Your task to perform on an android device: Go to Reddit.com Image 0: 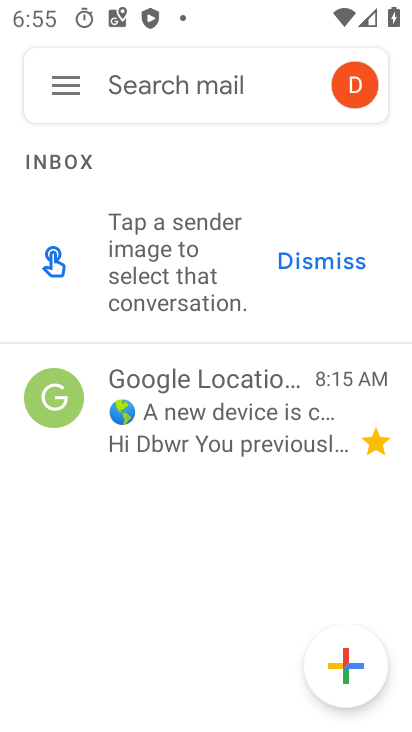
Step 0: press home button
Your task to perform on an android device: Go to Reddit.com Image 1: 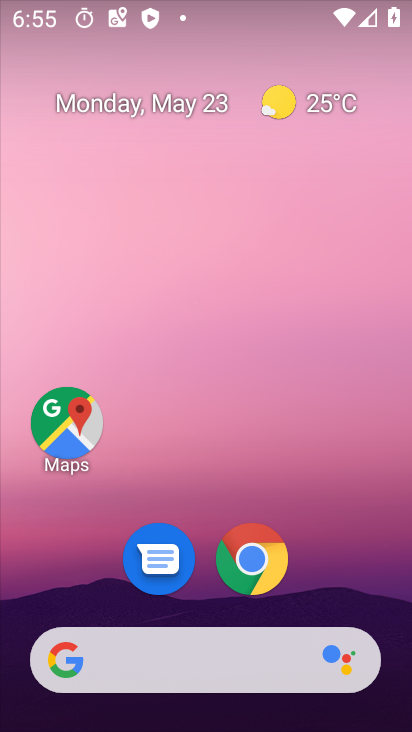
Step 1: drag from (402, 609) to (261, 56)
Your task to perform on an android device: Go to Reddit.com Image 2: 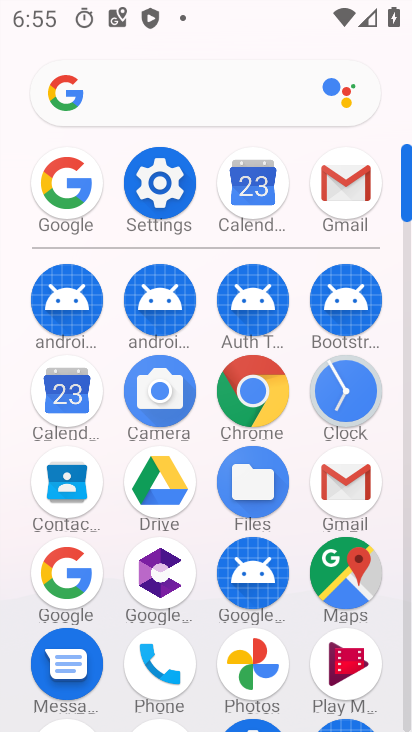
Step 2: click (64, 554)
Your task to perform on an android device: Go to Reddit.com Image 3: 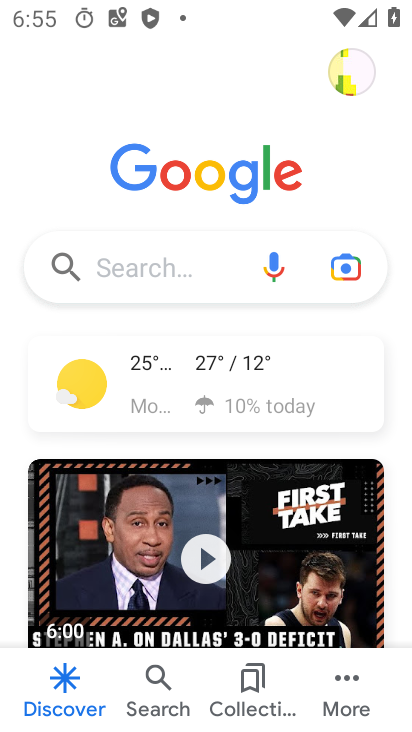
Step 3: click (139, 261)
Your task to perform on an android device: Go to Reddit.com Image 4: 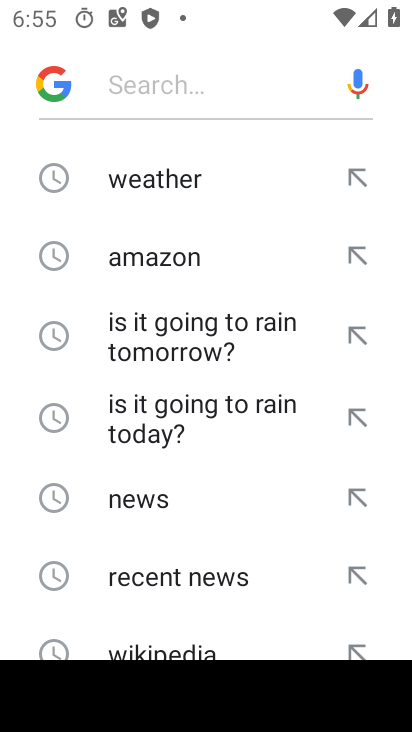
Step 4: drag from (154, 595) to (180, 164)
Your task to perform on an android device: Go to Reddit.com Image 5: 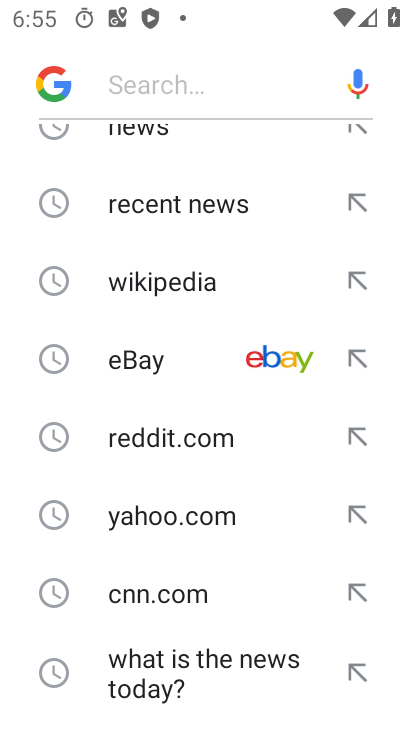
Step 5: click (166, 427)
Your task to perform on an android device: Go to Reddit.com Image 6: 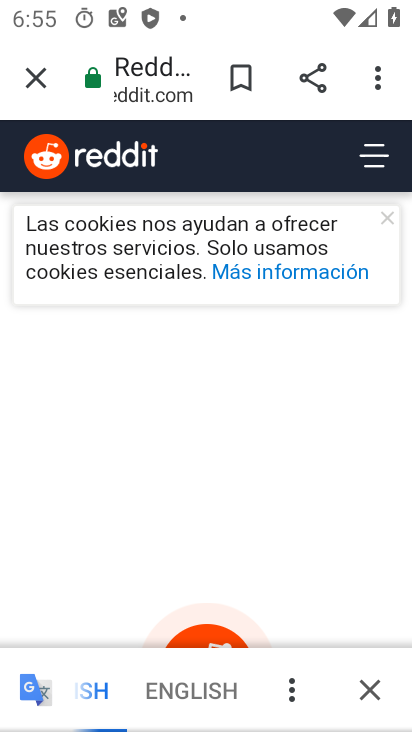
Step 6: task complete